Your task to perform on an android device: move a message to another label in the gmail app Image 0: 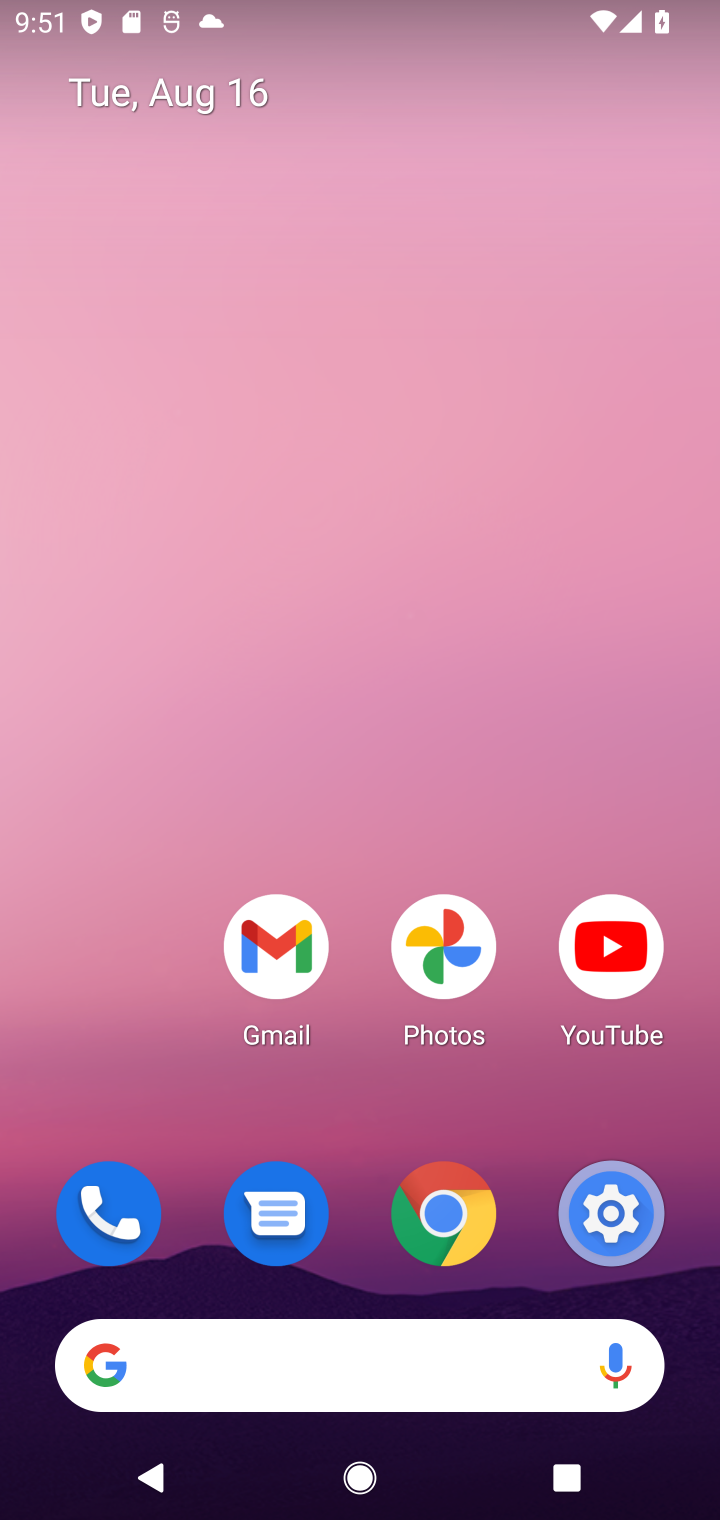
Step 0: drag from (309, 1256) to (312, 49)
Your task to perform on an android device: move a message to another label in the gmail app Image 1: 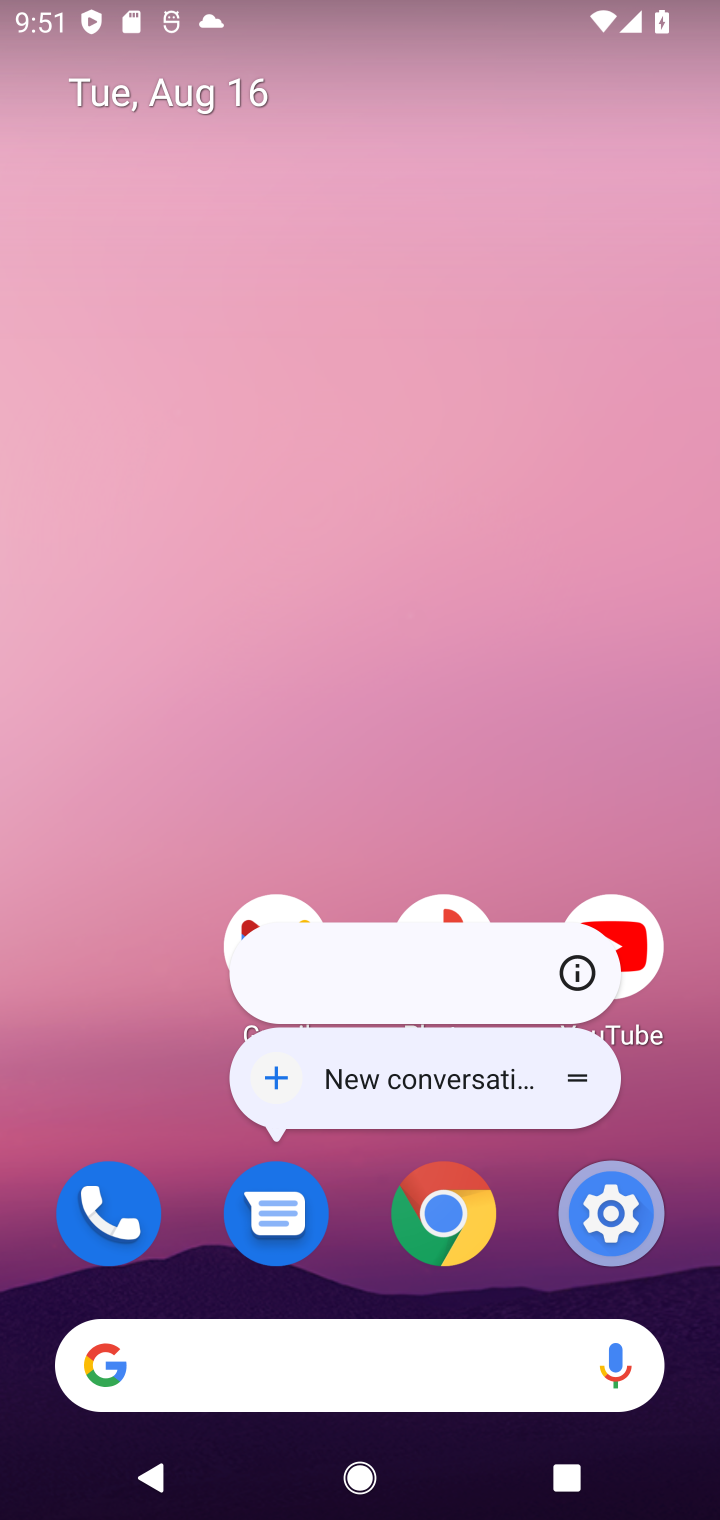
Step 1: click (357, 736)
Your task to perform on an android device: move a message to another label in the gmail app Image 2: 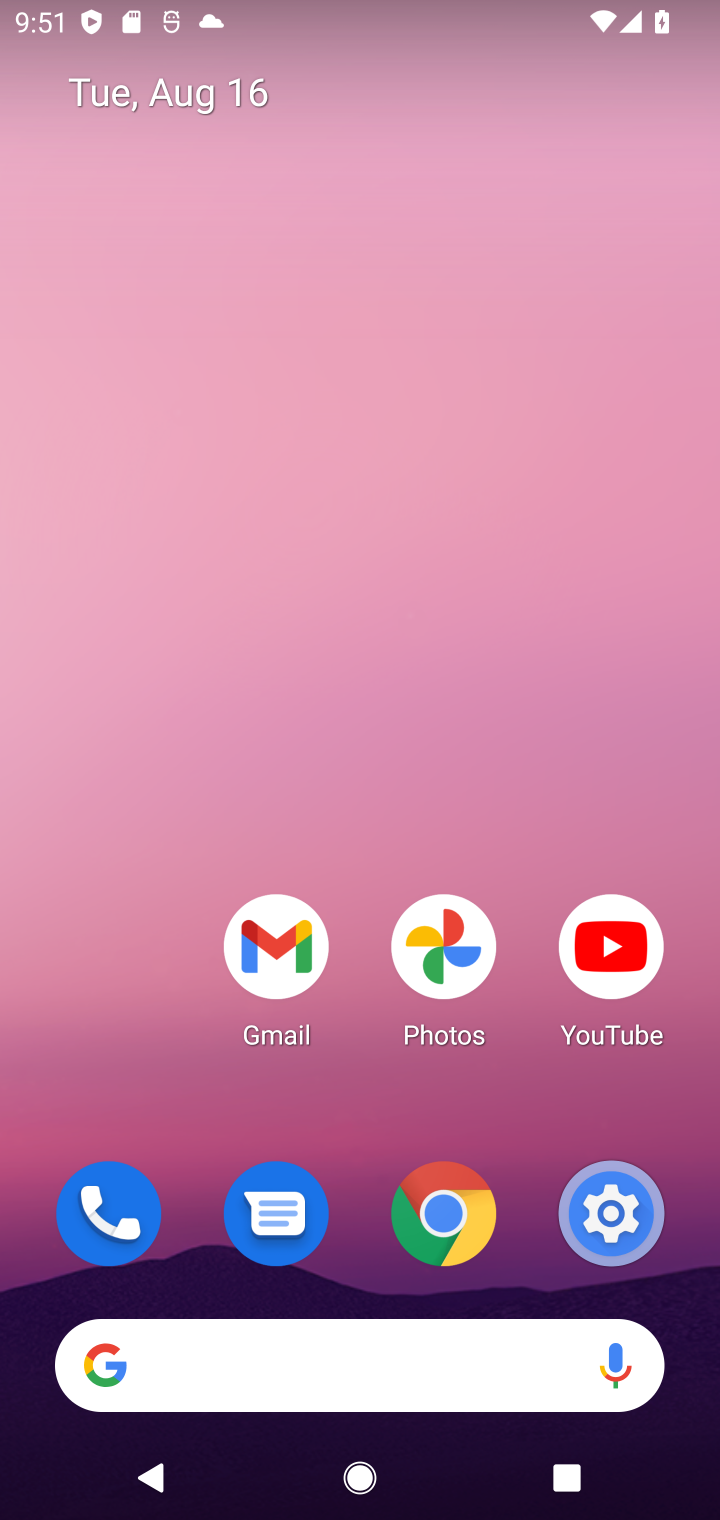
Step 2: drag from (378, 1226) to (389, 242)
Your task to perform on an android device: move a message to another label in the gmail app Image 3: 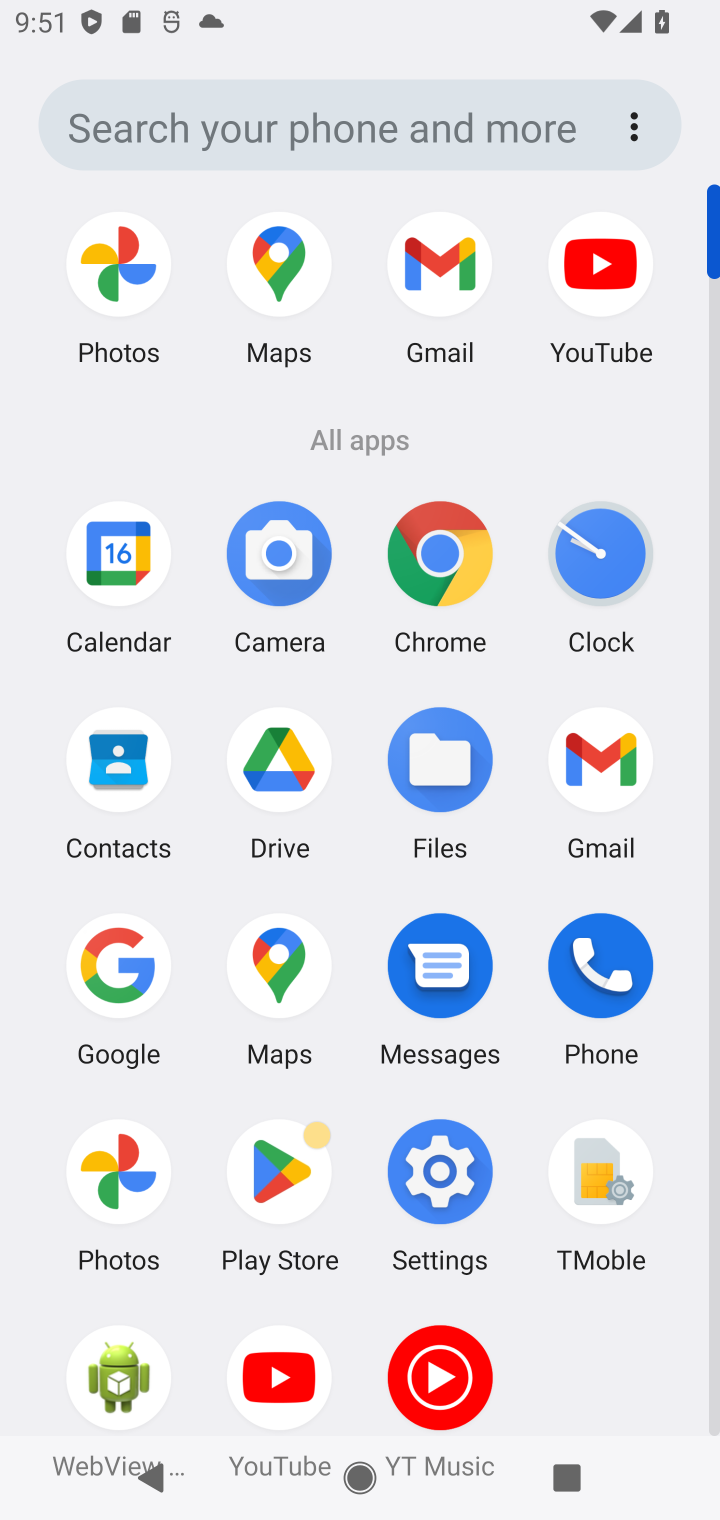
Step 3: click (580, 738)
Your task to perform on an android device: move a message to another label in the gmail app Image 4: 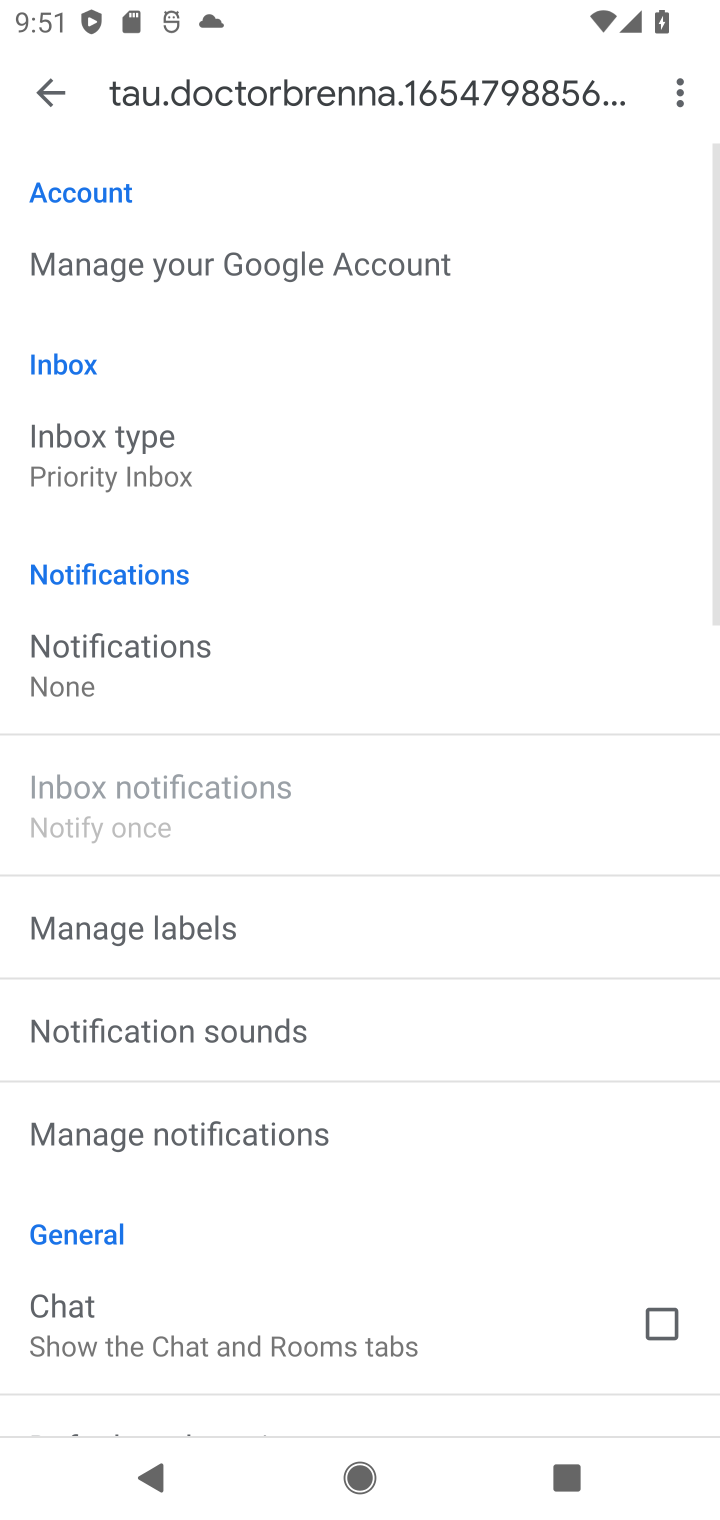
Step 4: click (31, 82)
Your task to perform on an android device: move a message to another label in the gmail app Image 5: 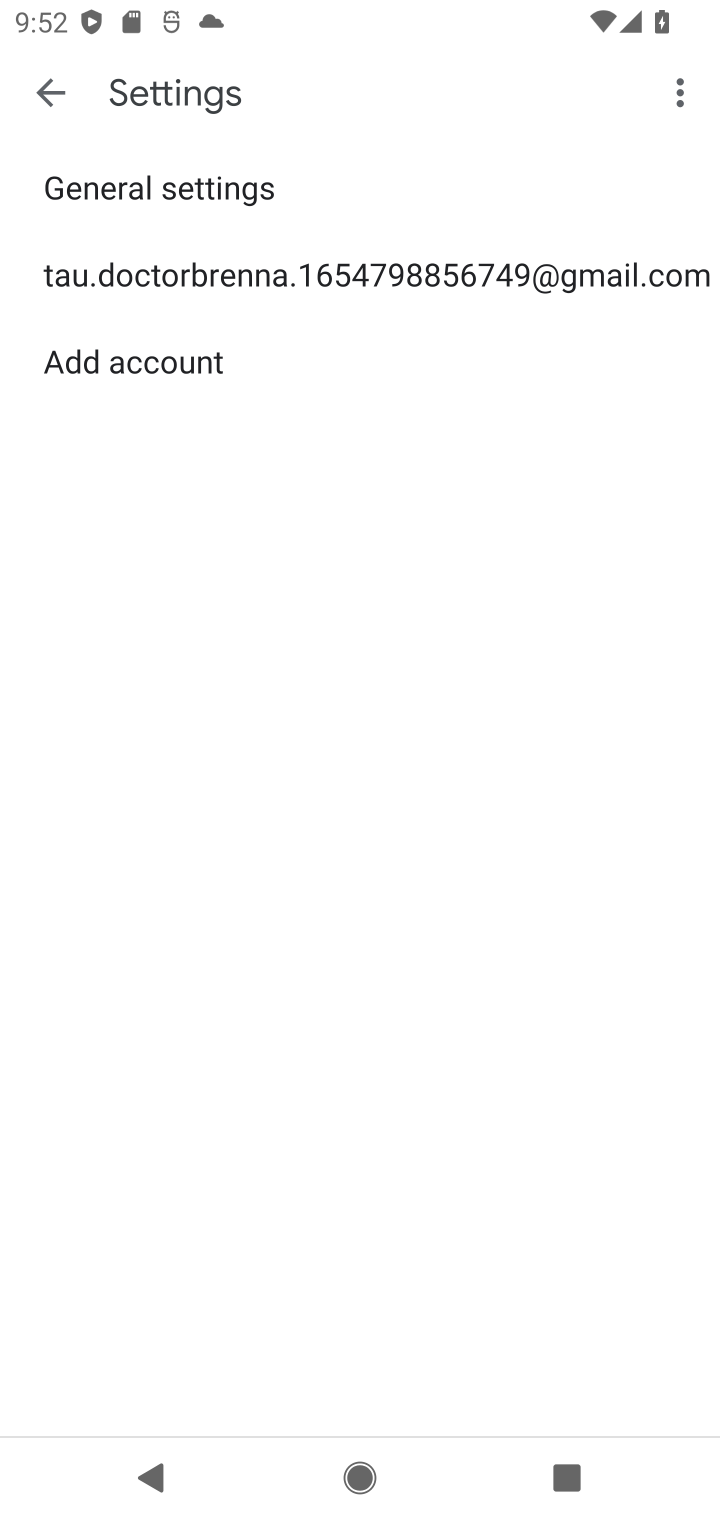
Step 5: click (263, 275)
Your task to perform on an android device: move a message to another label in the gmail app Image 6: 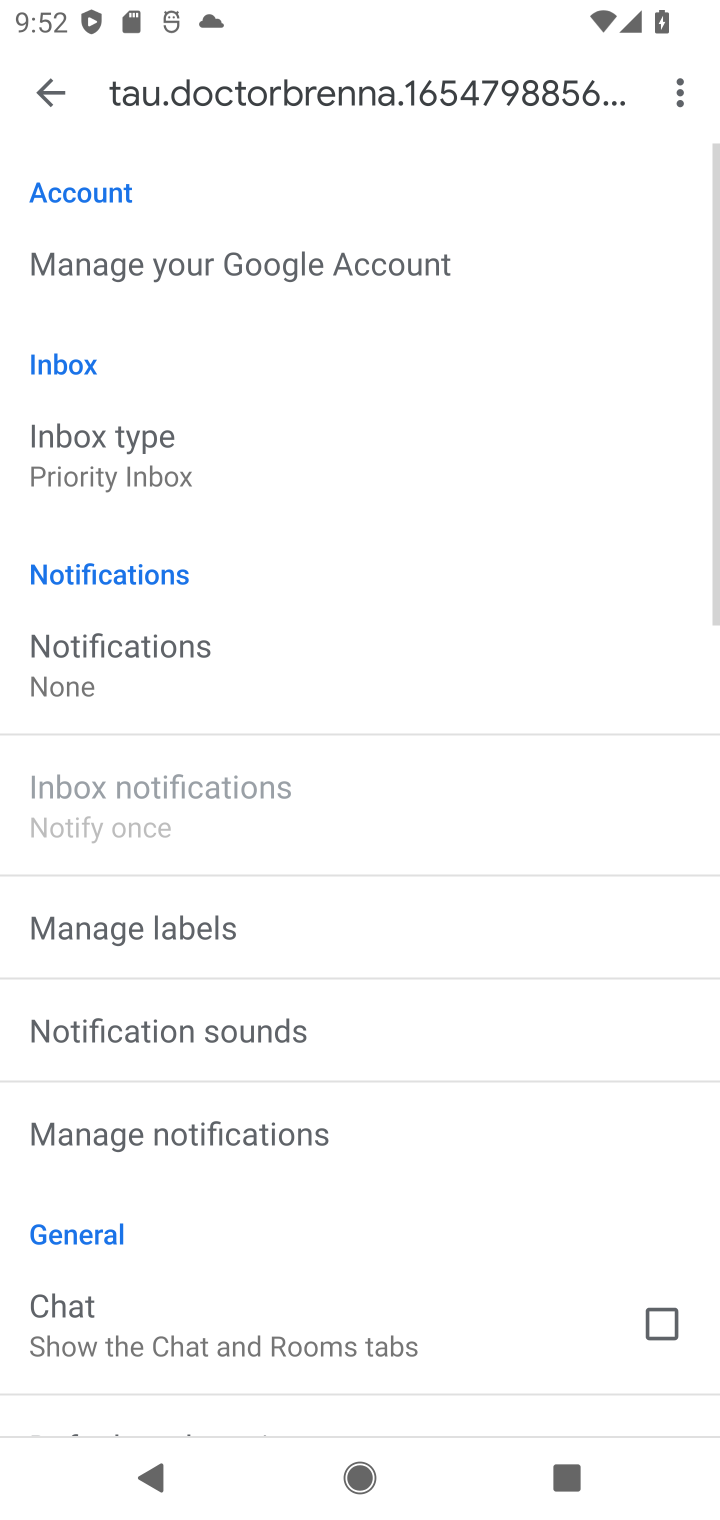
Step 6: click (70, 79)
Your task to perform on an android device: move a message to another label in the gmail app Image 7: 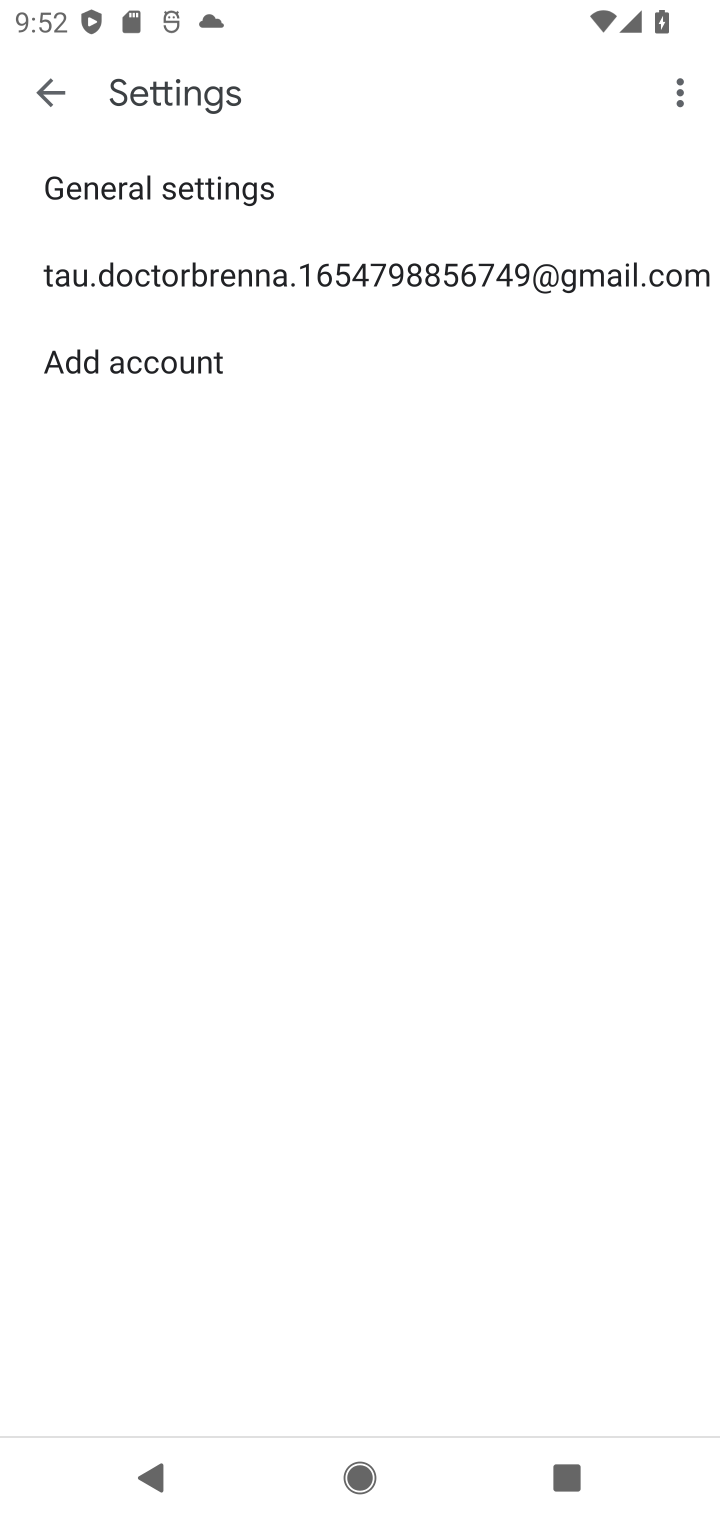
Step 7: click (58, 71)
Your task to perform on an android device: move a message to another label in the gmail app Image 8: 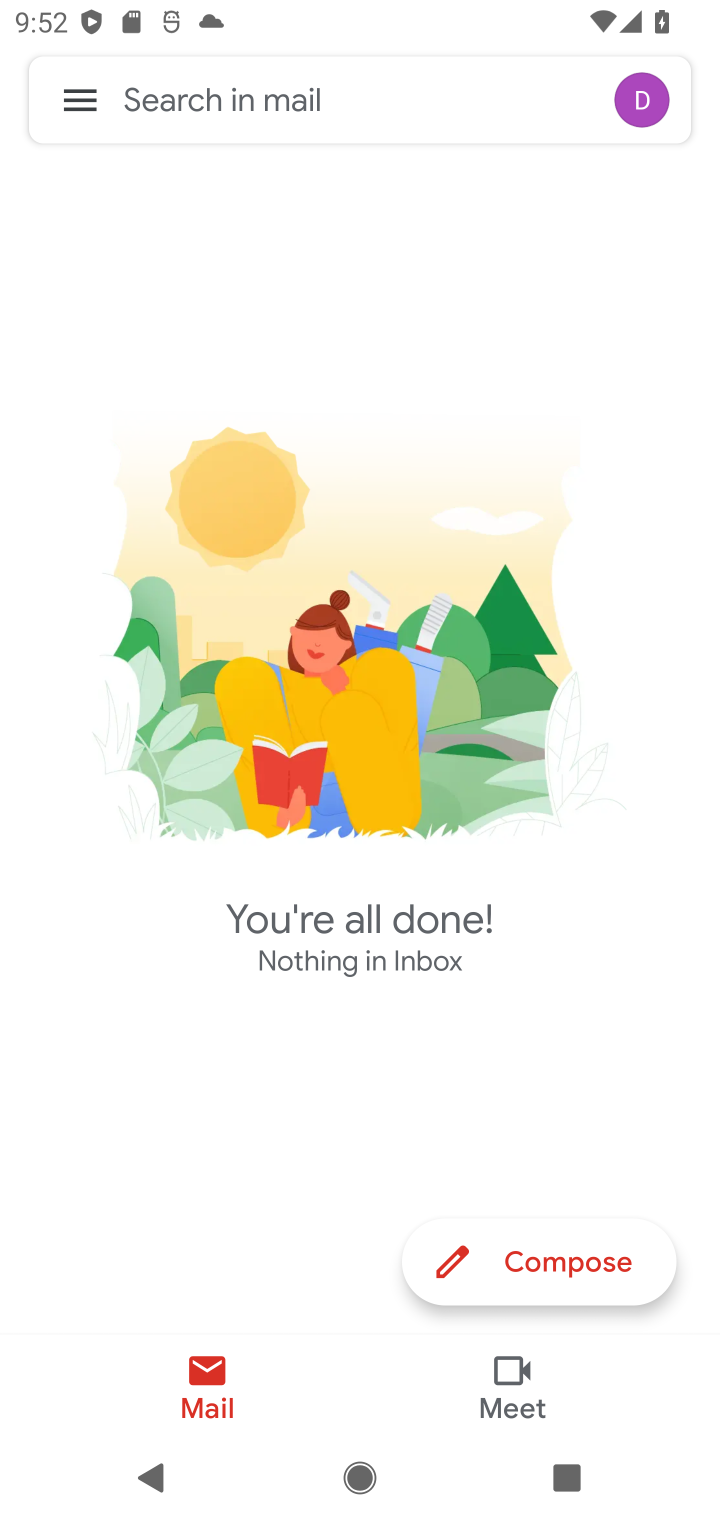
Step 8: click (86, 84)
Your task to perform on an android device: move a message to another label in the gmail app Image 9: 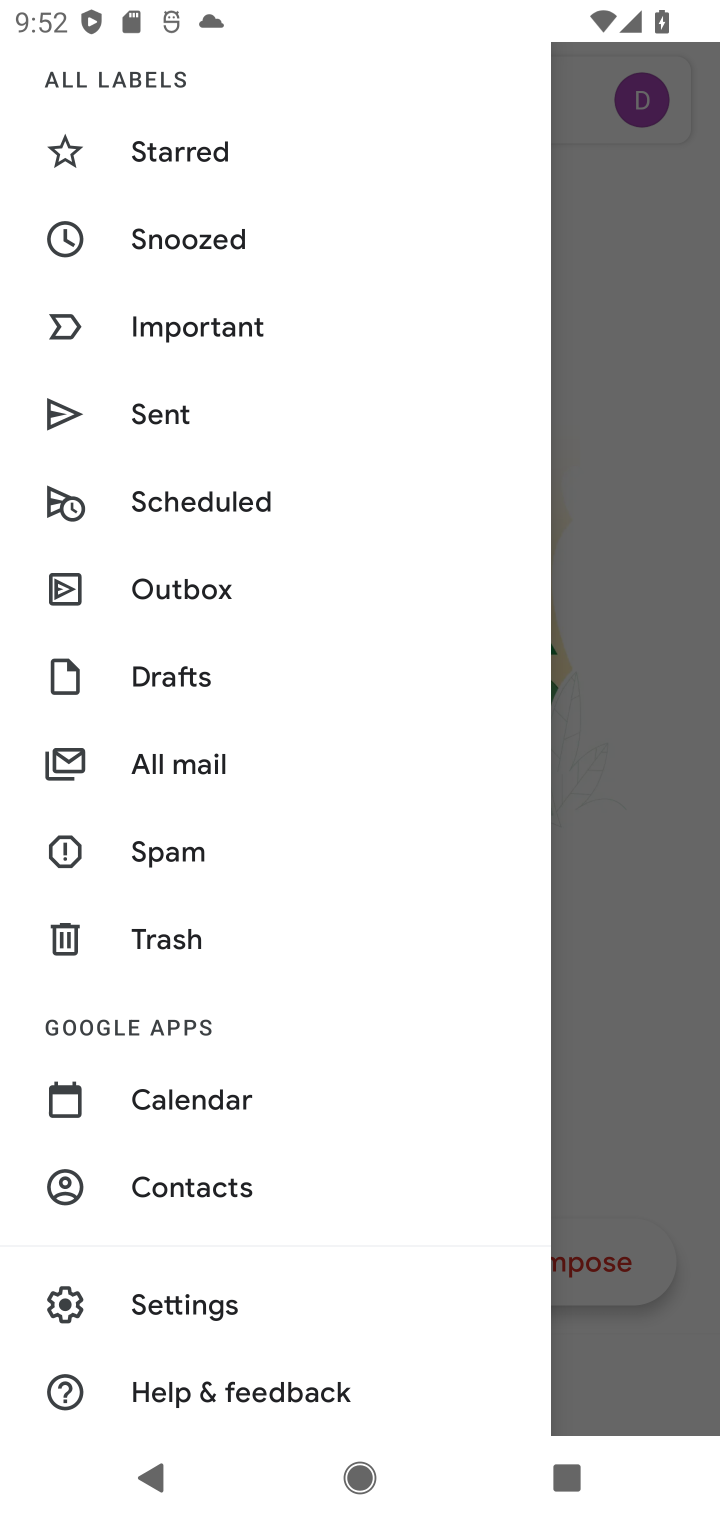
Step 9: click (203, 745)
Your task to perform on an android device: move a message to another label in the gmail app Image 10: 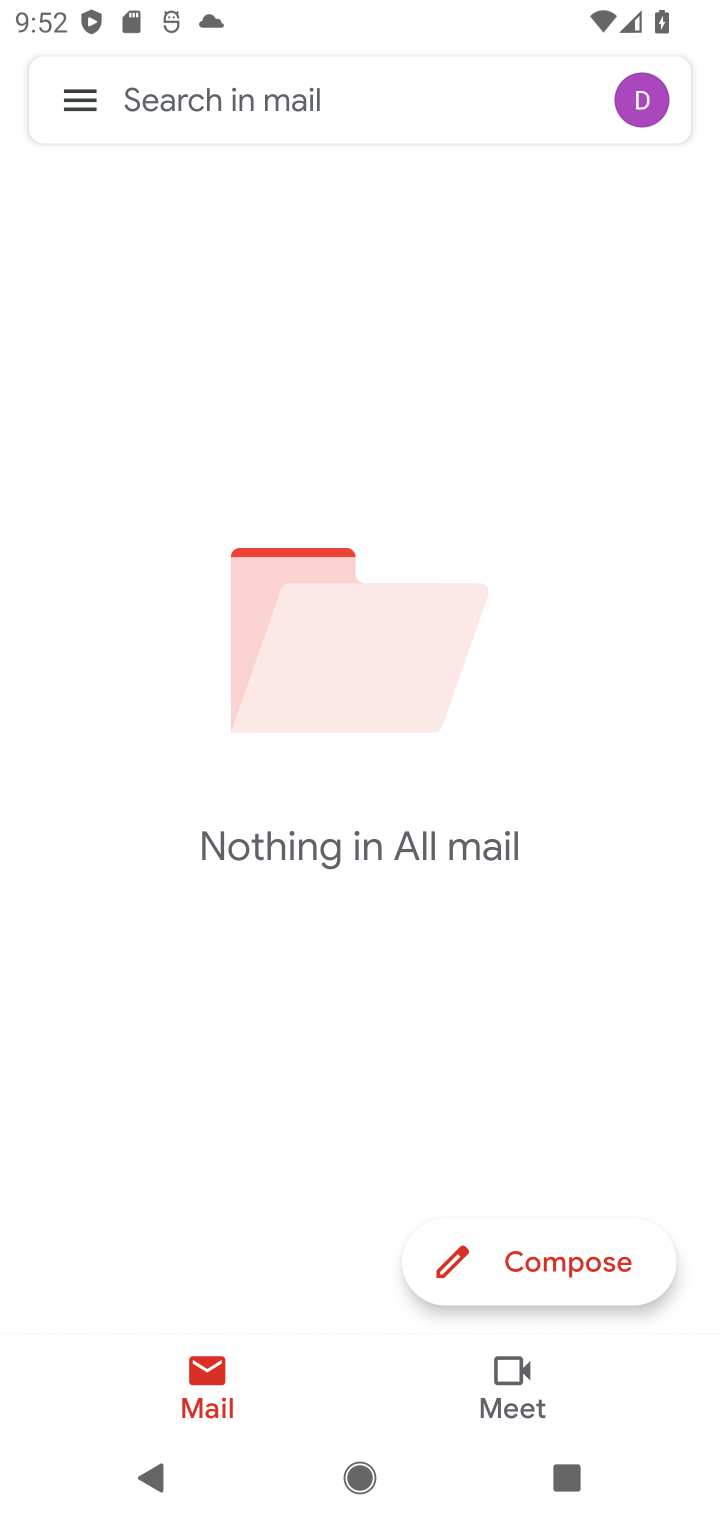
Step 10: task complete